Your task to perform on an android device: refresh tabs in the chrome app Image 0: 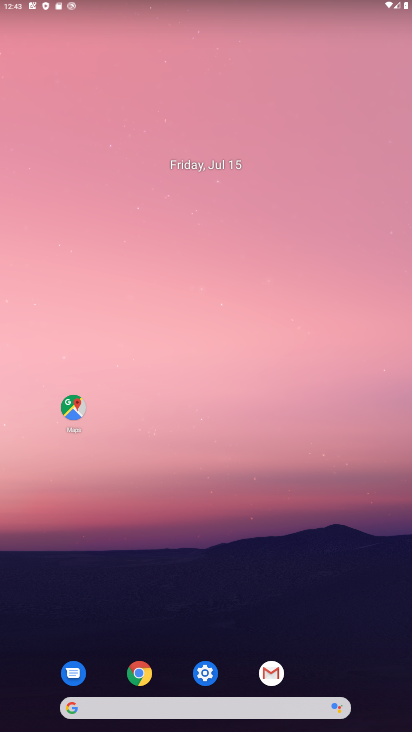
Step 0: press home button
Your task to perform on an android device: refresh tabs in the chrome app Image 1: 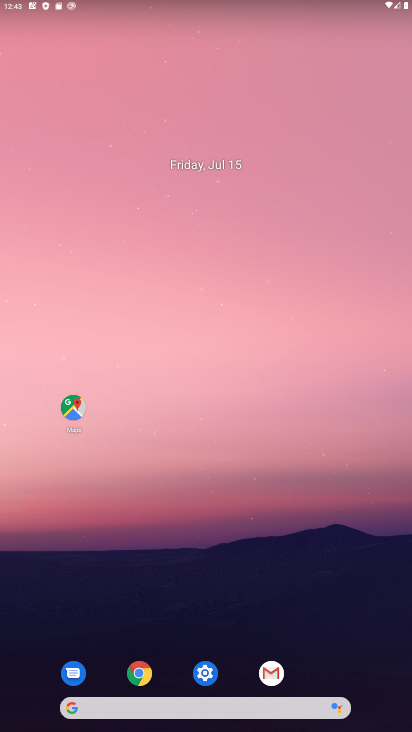
Step 1: click (149, 676)
Your task to perform on an android device: refresh tabs in the chrome app Image 2: 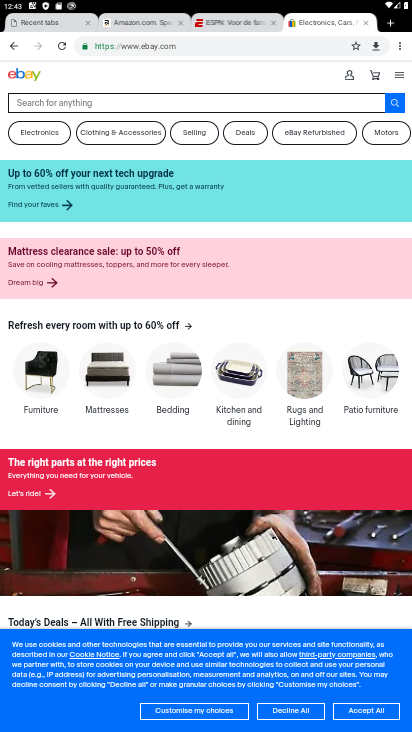
Step 2: click (399, 49)
Your task to perform on an android device: refresh tabs in the chrome app Image 3: 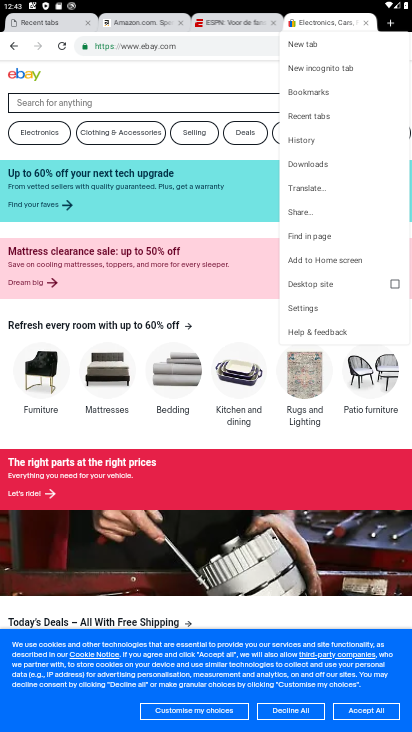
Step 3: click (60, 49)
Your task to perform on an android device: refresh tabs in the chrome app Image 4: 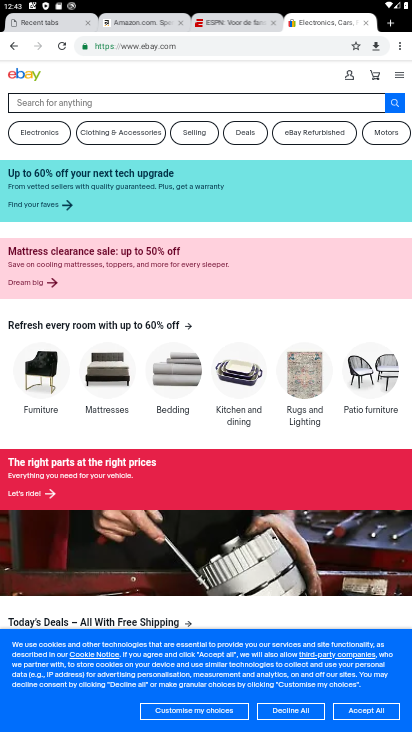
Step 4: click (60, 49)
Your task to perform on an android device: refresh tabs in the chrome app Image 5: 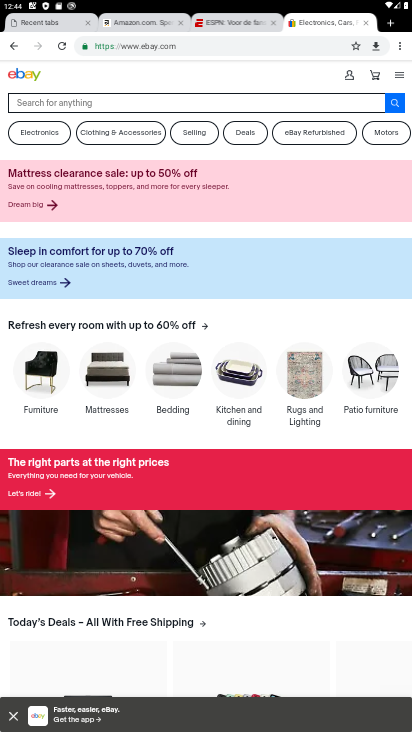
Step 5: task complete